Your task to perform on an android device: open app "LiveIn - Share Your Moment" Image 0: 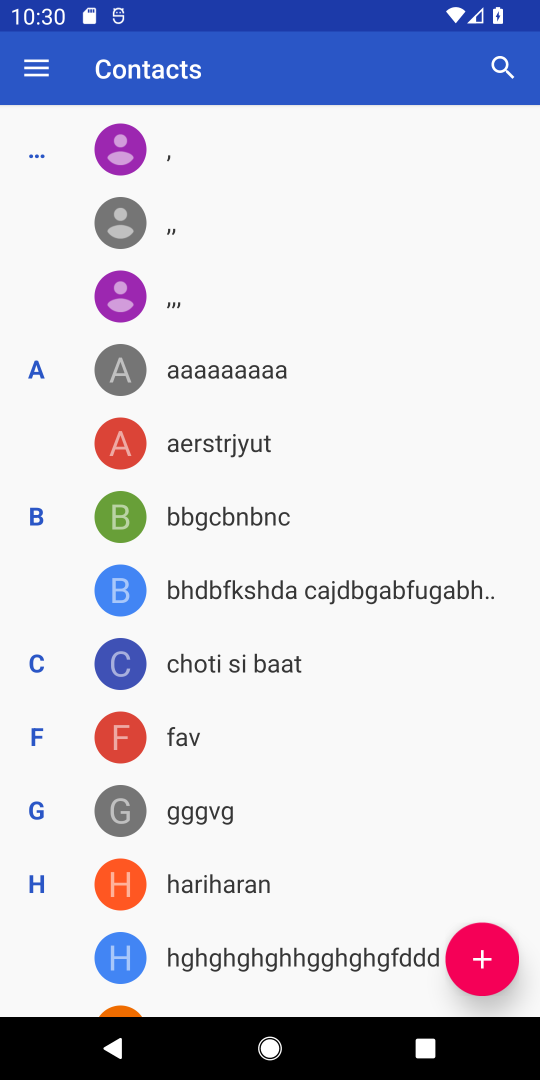
Step 0: press home button
Your task to perform on an android device: open app "LiveIn - Share Your Moment" Image 1: 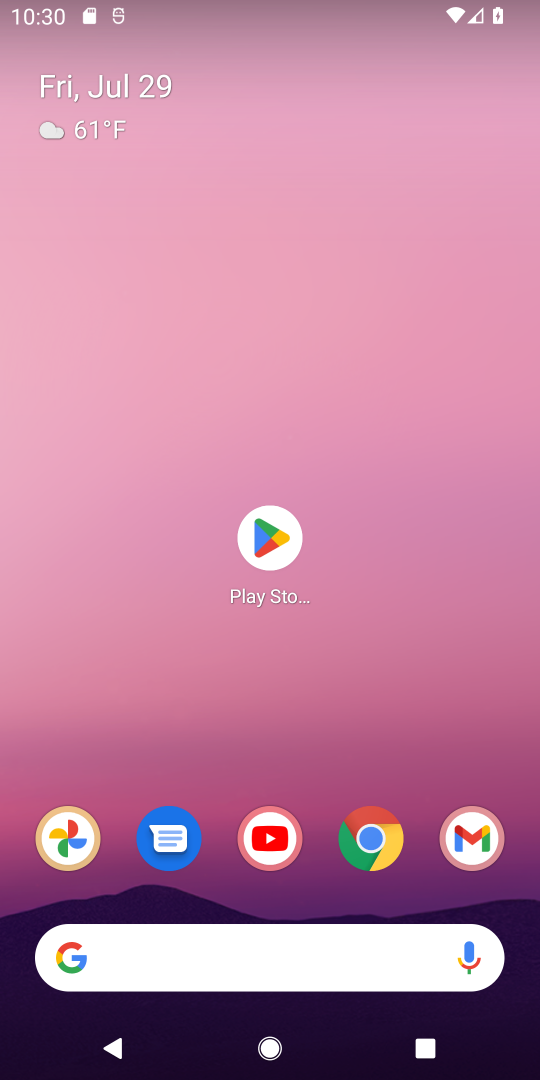
Step 1: click (263, 526)
Your task to perform on an android device: open app "LiveIn - Share Your Moment" Image 2: 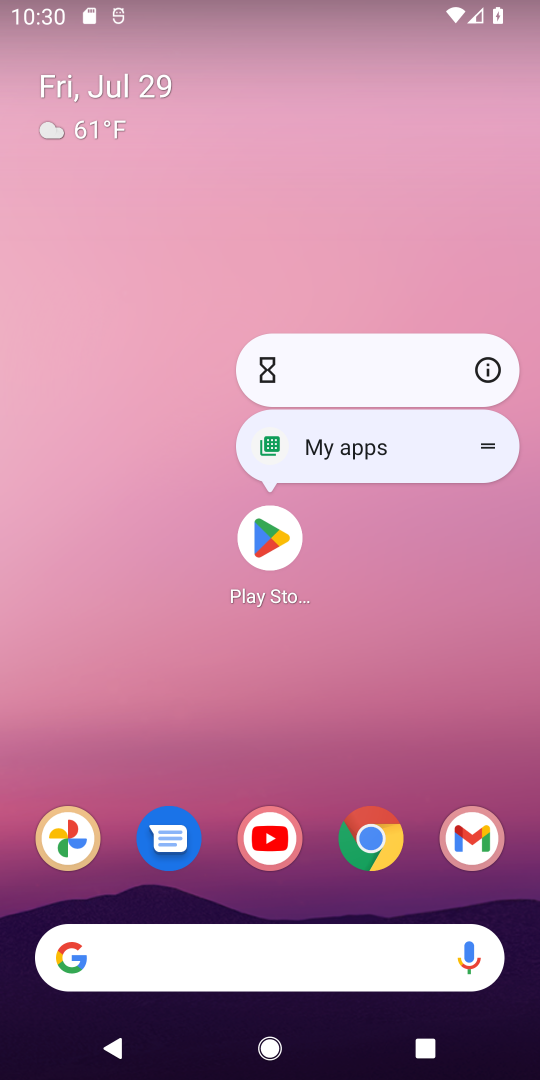
Step 2: click (284, 537)
Your task to perform on an android device: open app "LiveIn - Share Your Moment" Image 3: 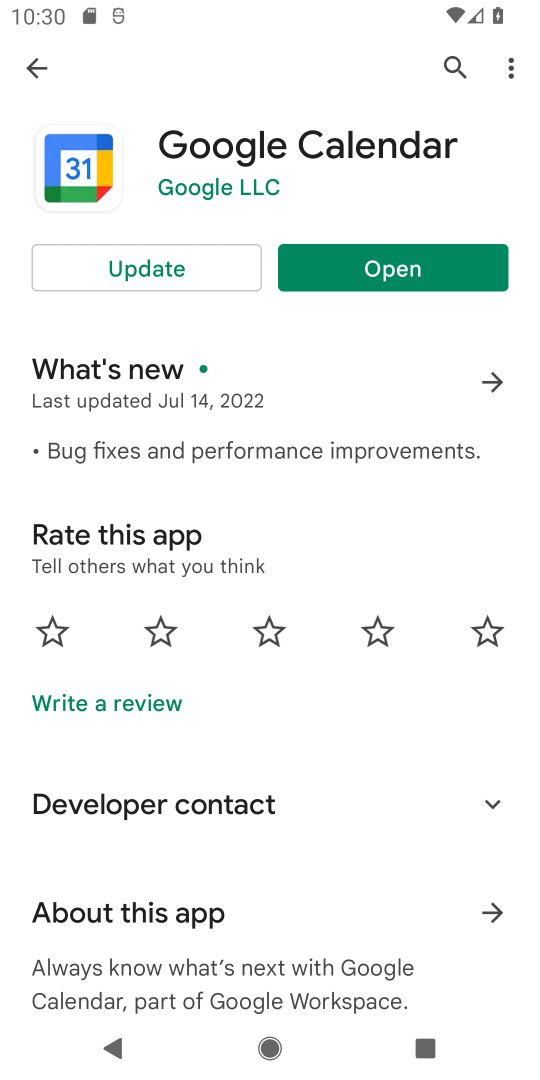
Step 3: click (453, 59)
Your task to perform on an android device: open app "LiveIn - Share Your Moment" Image 4: 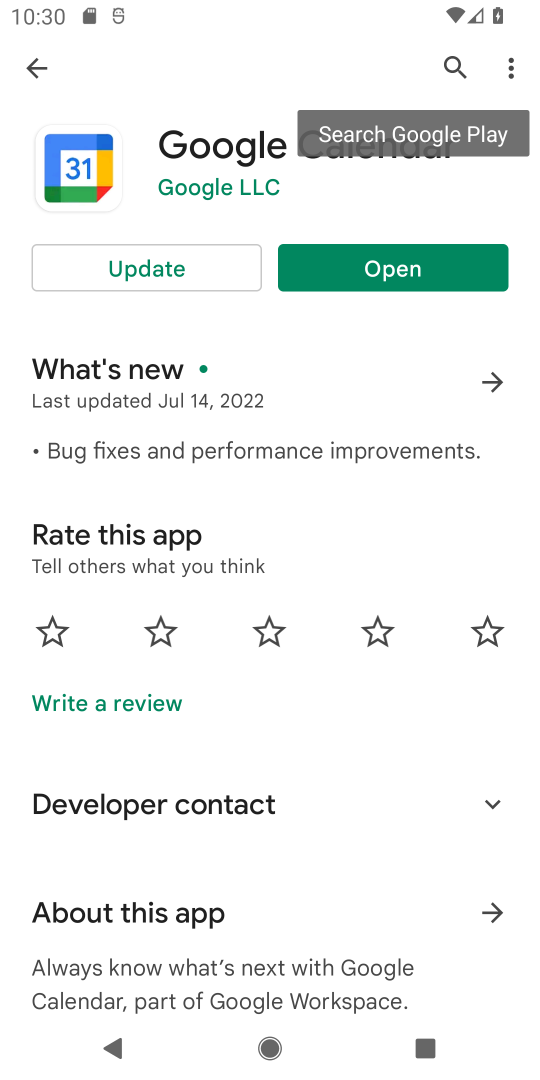
Step 4: click (453, 57)
Your task to perform on an android device: open app "LiveIn - Share Your Moment" Image 5: 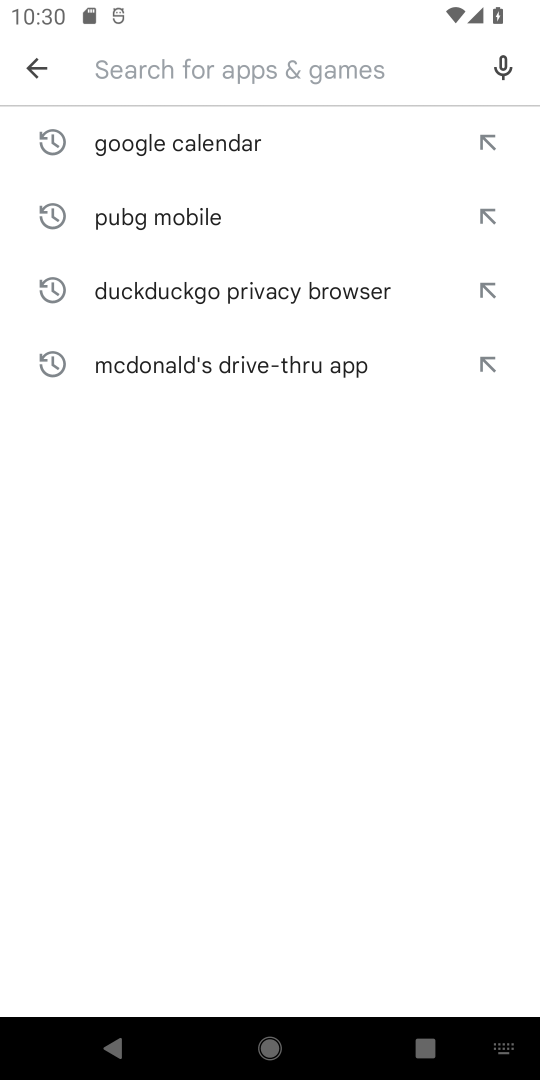
Step 5: type "LiveIn - Share Your Moment"
Your task to perform on an android device: open app "LiveIn - Share Your Moment" Image 6: 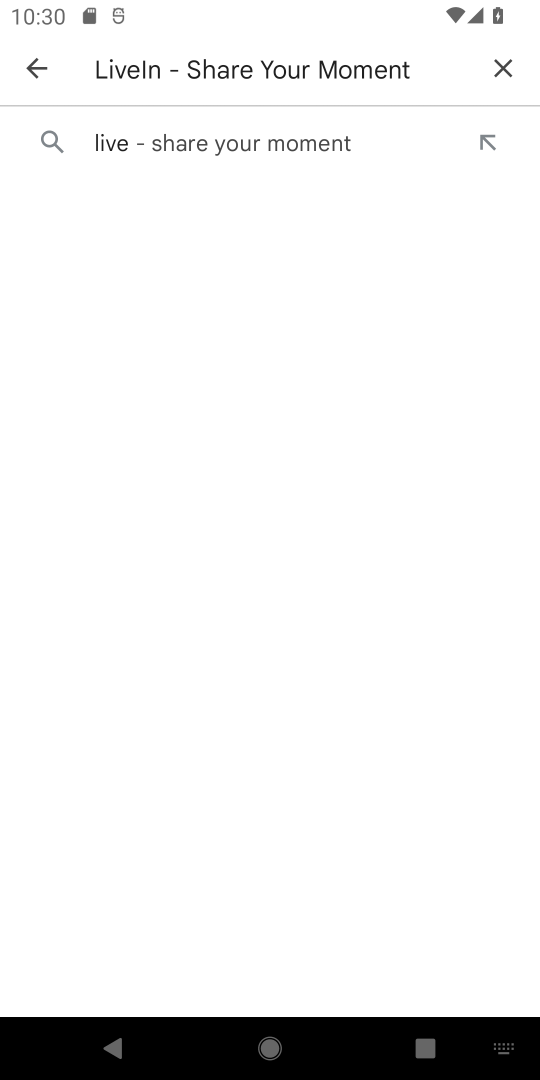
Step 6: click (224, 136)
Your task to perform on an android device: open app "LiveIn - Share Your Moment" Image 7: 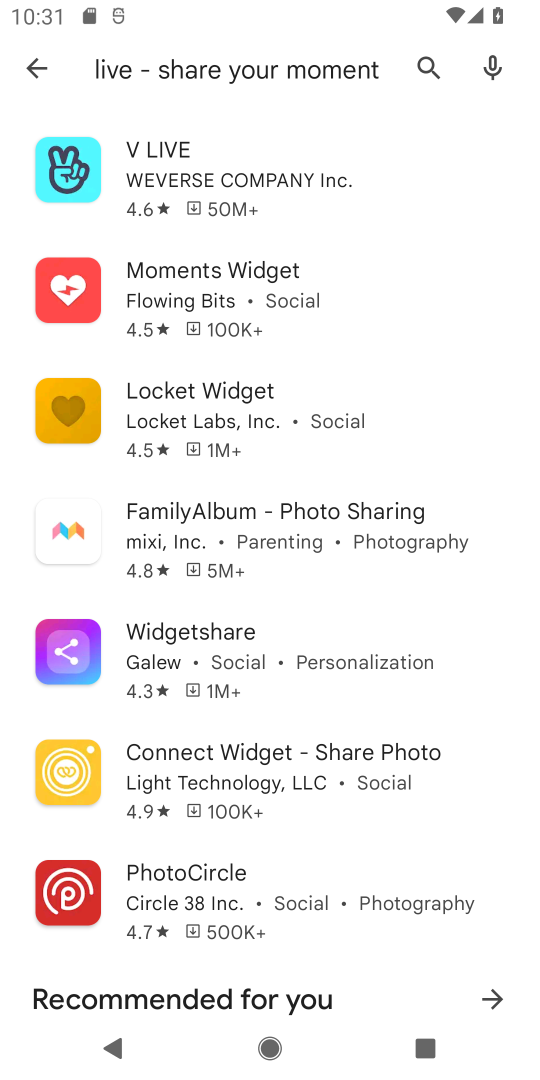
Step 7: task complete